Your task to perform on an android device: toggle airplane mode Image 0: 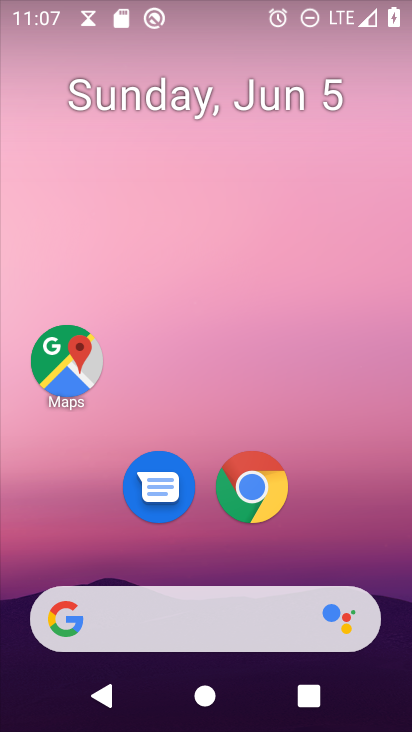
Step 0: drag from (296, 559) to (261, 228)
Your task to perform on an android device: toggle airplane mode Image 1: 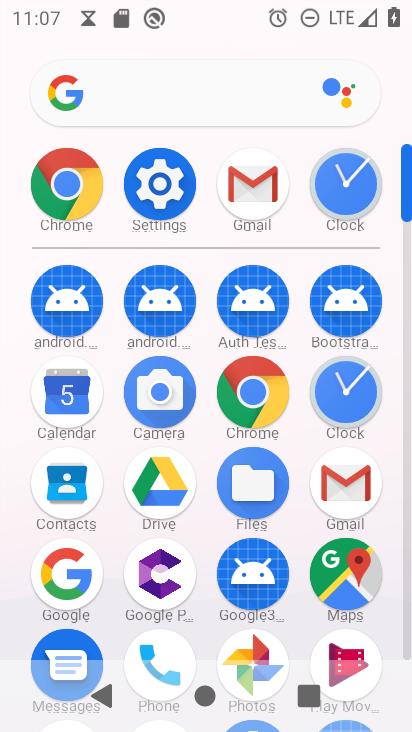
Step 1: click (158, 191)
Your task to perform on an android device: toggle airplane mode Image 2: 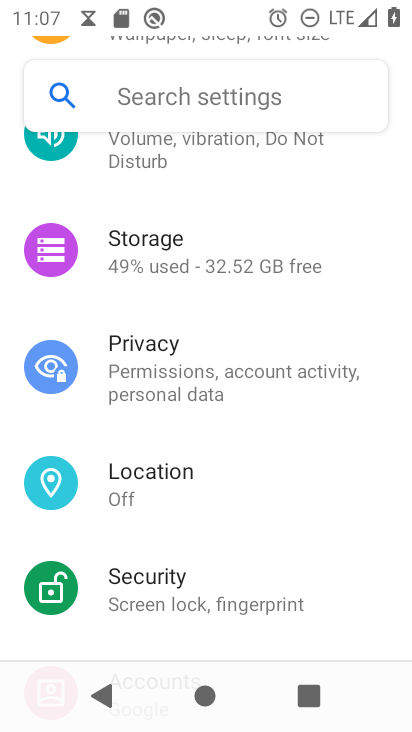
Step 2: drag from (197, 188) to (201, 514)
Your task to perform on an android device: toggle airplane mode Image 3: 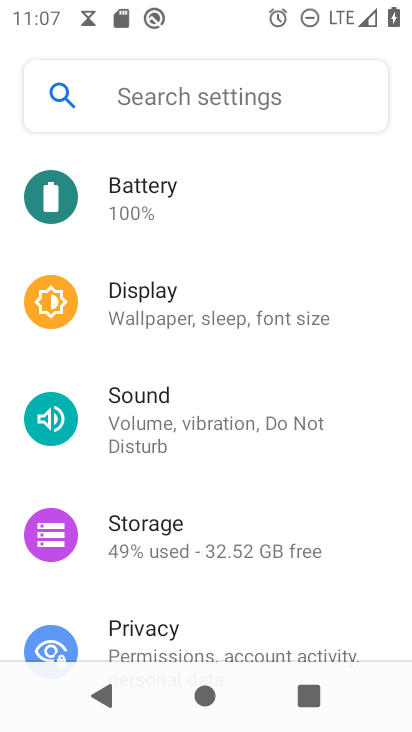
Step 3: drag from (210, 235) to (217, 550)
Your task to perform on an android device: toggle airplane mode Image 4: 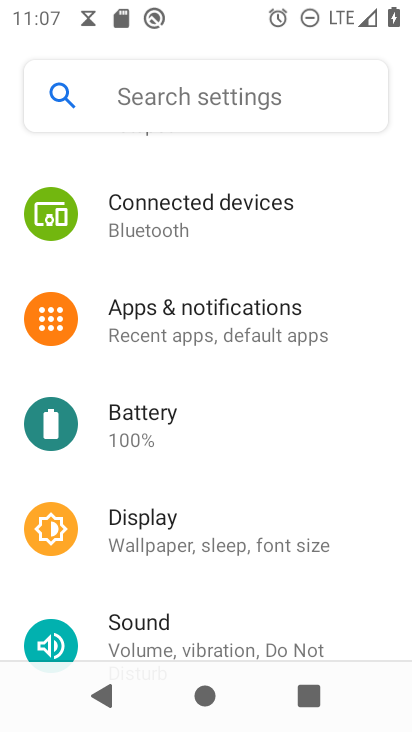
Step 4: drag from (180, 234) to (186, 443)
Your task to perform on an android device: toggle airplane mode Image 5: 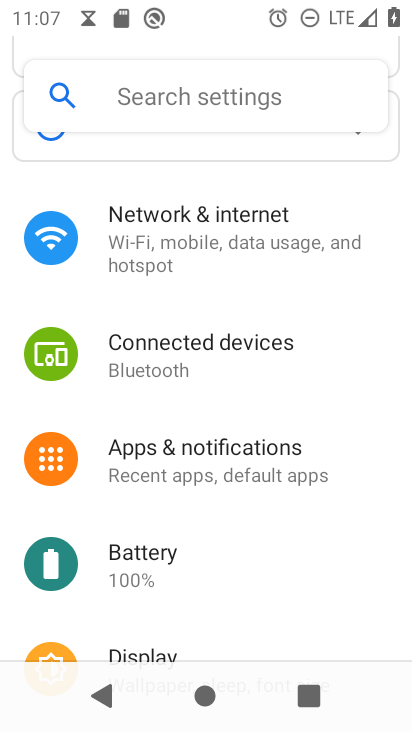
Step 5: click (254, 234)
Your task to perform on an android device: toggle airplane mode Image 6: 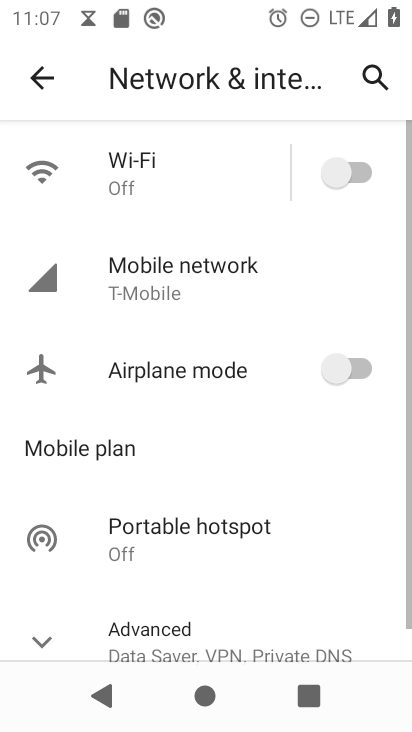
Step 6: click (339, 369)
Your task to perform on an android device: toggle airplane mode Image 7: 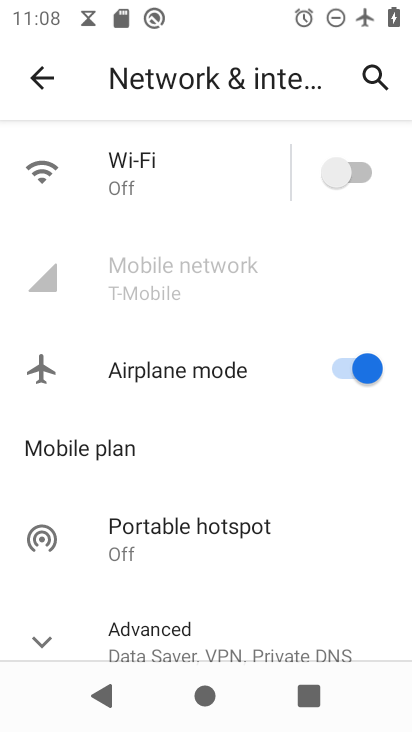
Step 7: task complete